Your task to perform on an android device: turn pop-ups off in chrome Image 0: 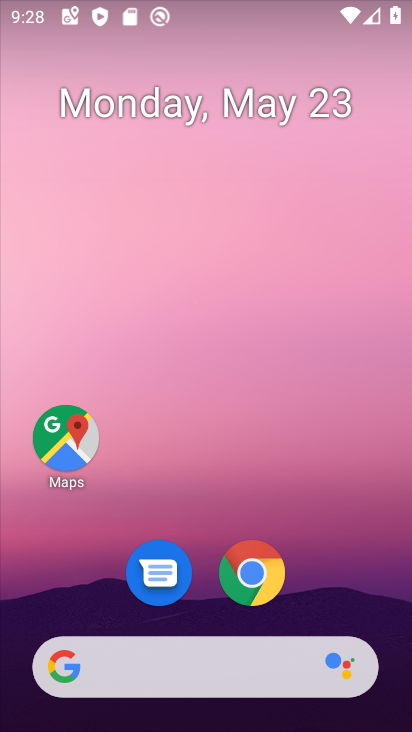
Step 0: drag from (361, 592) to (398, 331)
Your task to perform on an android device: turn pop-ups off in chrome Image 1: 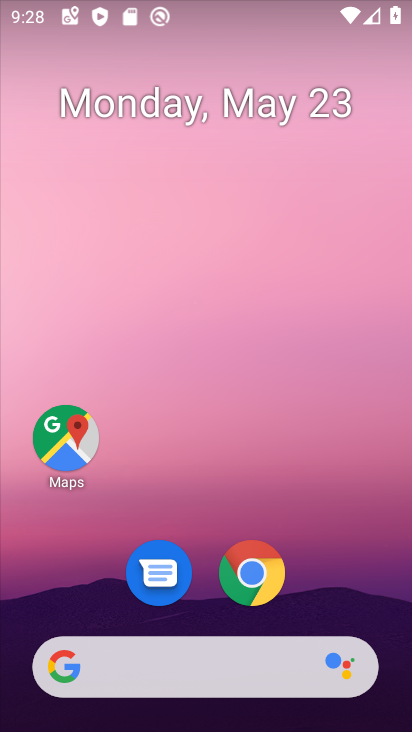
Step 1: drag from (354, 584) to (410, 457)
Your task to perform on an android device: turn pop-ups off in chrome Image 2: 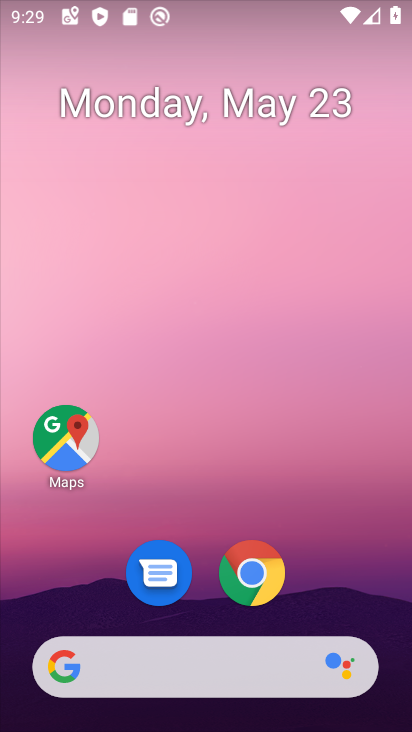
Step 2: drag from (348, 578) to (393, 112)
Your task to perform on an android device: turn pop-ups off in chrome Image 3: 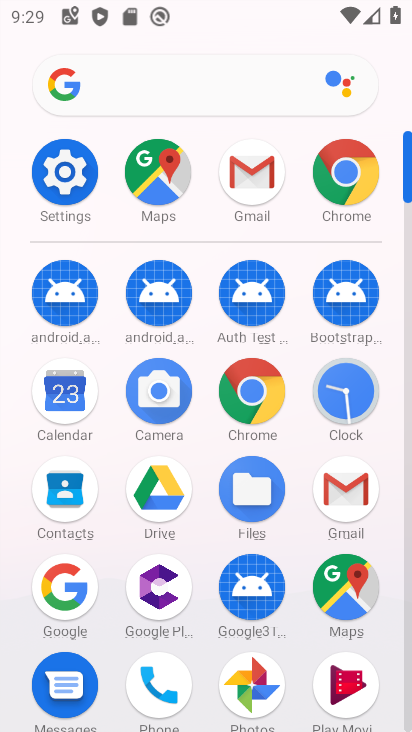
Step 3: click (350, 179)
Your task to perform on an android device: turn pop-ups off in chrome Image 4: 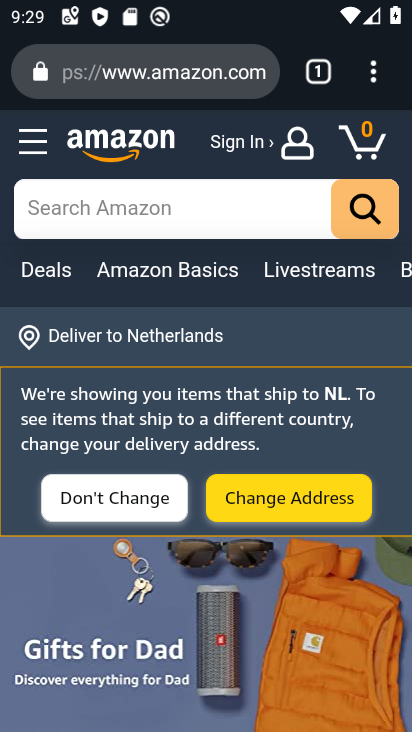
Step 4: click (373, 75)
Your task to perform on an android device: turn pop-ups off in chrome Image 5: 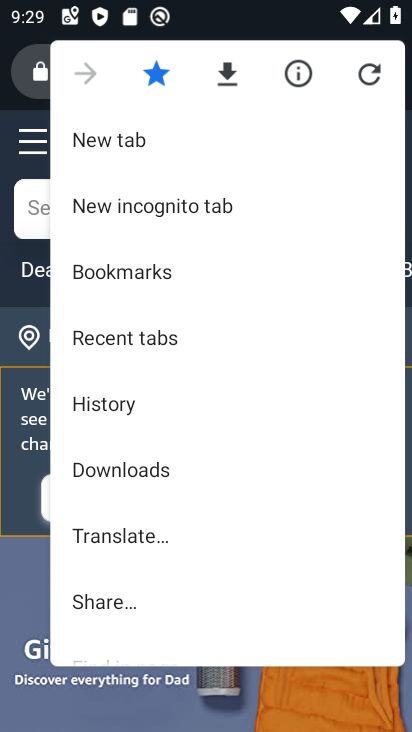
Step 5: drag from (322, 526) to (323, 401)
Your task to perform on an android device: turn pop-ups off in chrome Image 6: 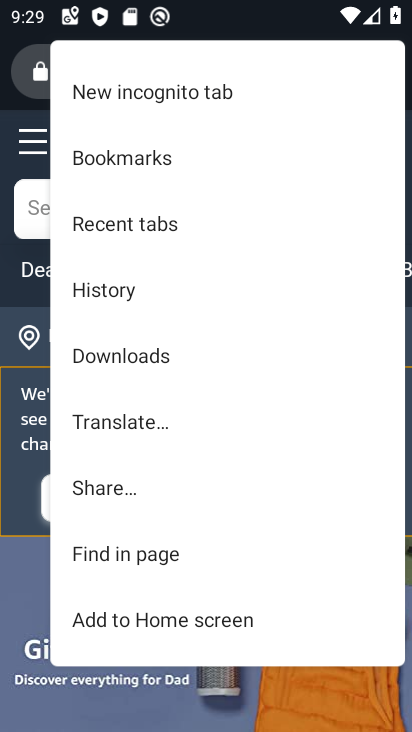
Step 6: drag from (333, 569) to (351, 437)
Your task to perform on an android device: turn pop-ups off in chrome Image 7: 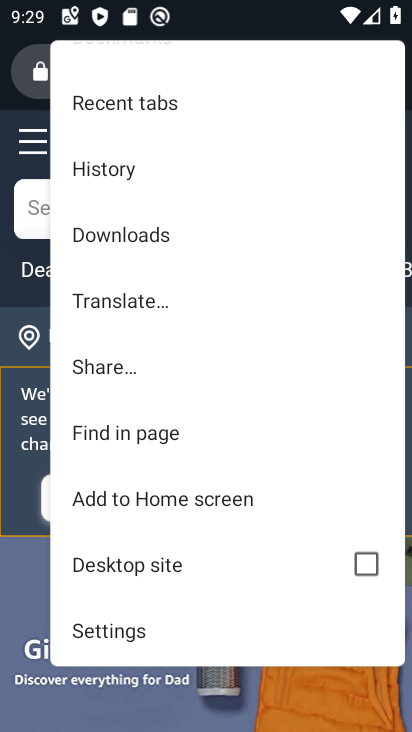
Step 7: drag from (295, 586) to (293, 488)
Your task to perform on an android device: turn pop-ups off in chrome Image 8: 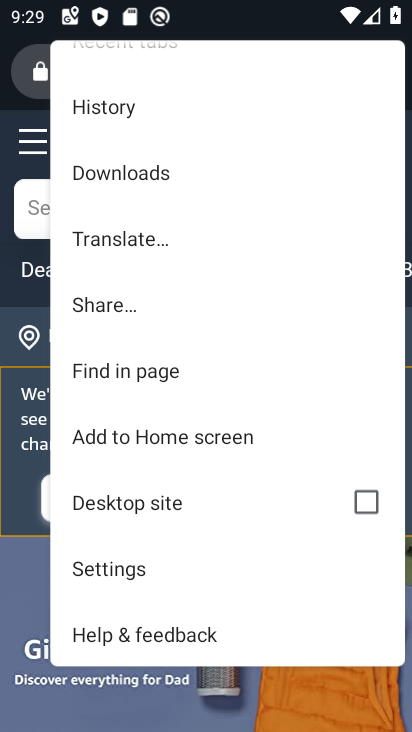
Step 8: click (144, 582)
Your task to perform on an android device: turn pop-ups off in chrome Image 9: 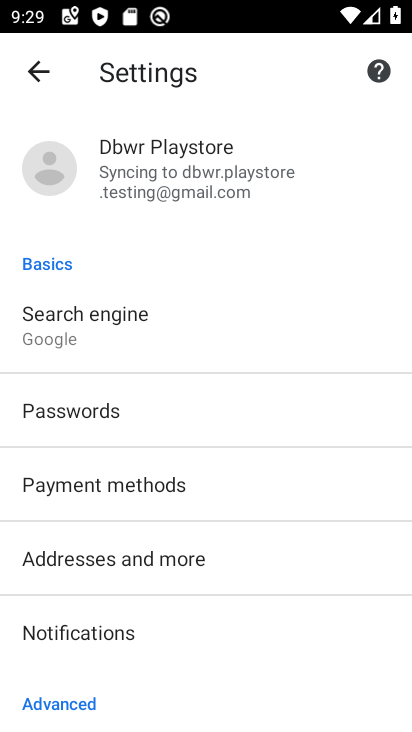
Step 9: drag from (326, 604) to (347, 482)
Your task to perform on an android device: turn pop-ups off in chrome Image 10: 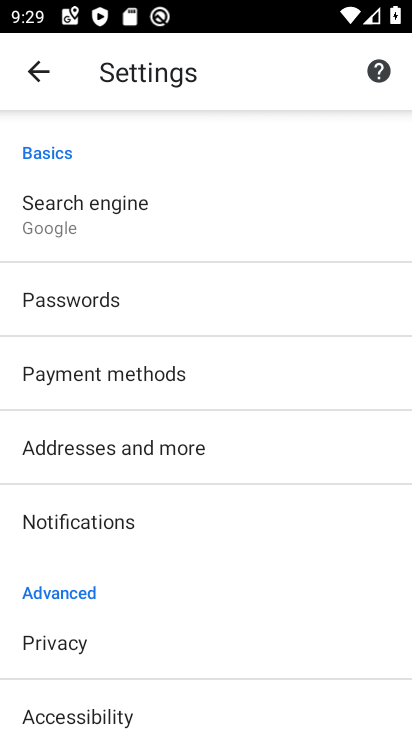
Step 10: drag from (337, 642) to (340, 471)
Your task to perform on an android device: turn pop-ups off in chrome Image 11: 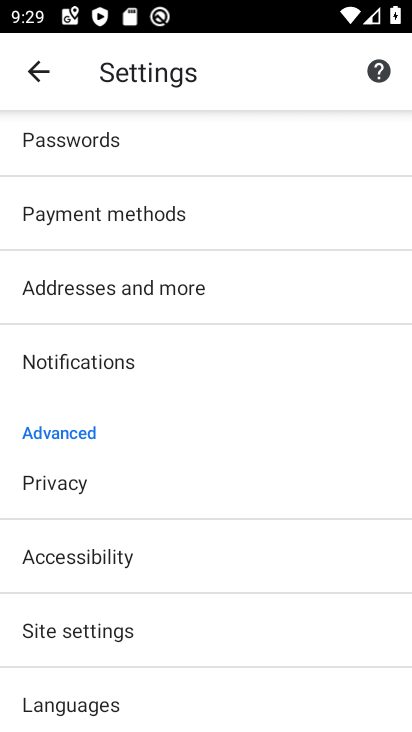
Step 11: drag from (335, 654) to (340, 547)
Your task to perform on an android device: turn pop-ups off in chrome Image 12: 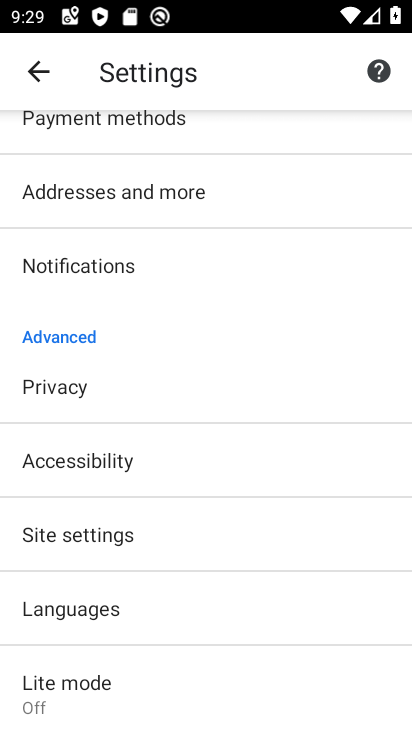
Step 12: drag from (344, 651) to (347, 523)
Your task to perform on an android device: turn pop-ups off in chrome Image 13: 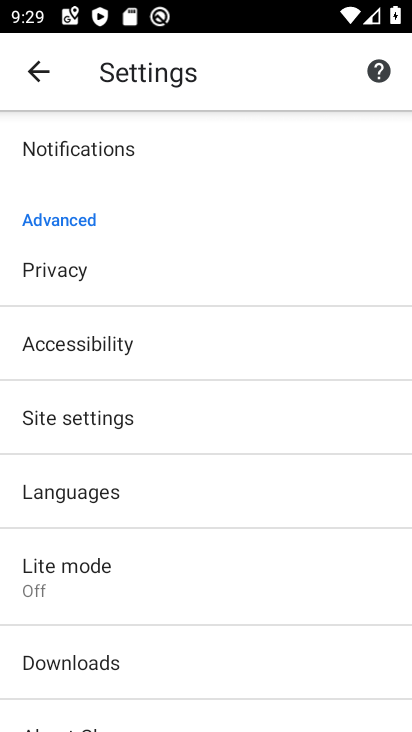
Step 13: drag from (351, 655) to (355, 539)
Your task to perform on an android device: turn pop-ups off in chrome Image 14: 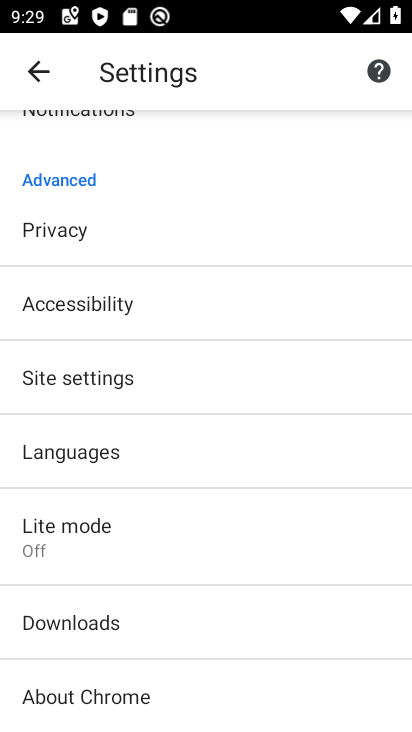
Step 14: click (306, 386)
Your task to perform on an android device: turn pop-ups off in chrome Image 15: 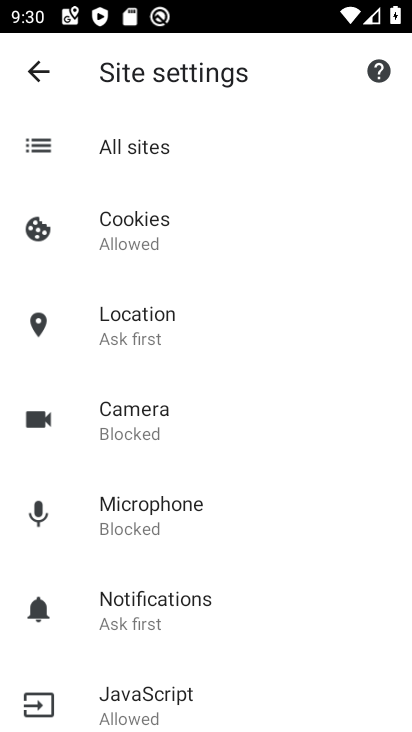
Step 15: drag from (329, 595) to (344, 465)
Your task to perform on an android device: turn pop-ups off in chrome Image 16: 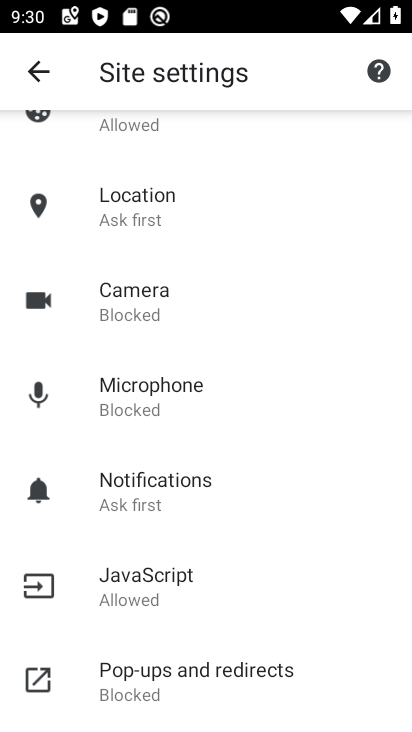
Step 16: drag from (349, 647) to (344, 521)
Your task to perform on an android device: turn pop-ups off in chrome Image 17: 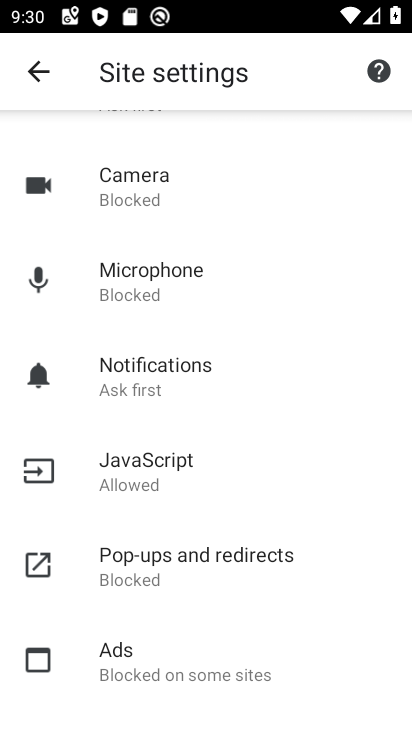
Step 17: drag from (365, 640) to (350, 526)
Your task to perform on an android device: turn pop-ups off in chrome Image 18: 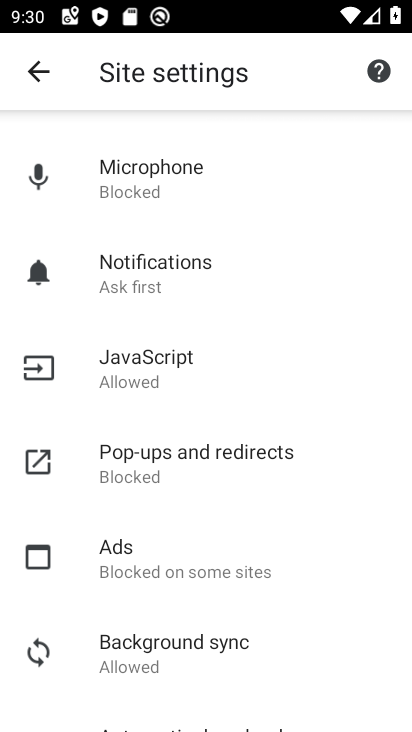
Step 18: drag from (369, 663) to (368, 535)
Your task to perform on an android device: turn pop-ups off in chrome Image 19: 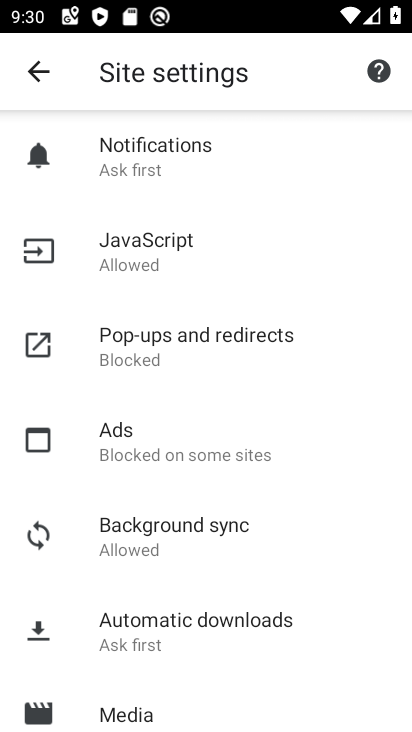
Step 19: drag from (363, 675) to (351, 582)
Your task to perform on an android device: turn pop-ups off in chrome Image 20: 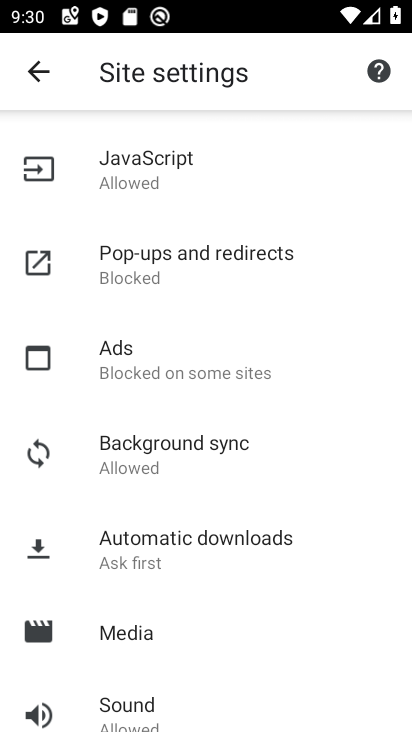
Step 20: drag from (359, 657) to (361, 550)
Your task to perform on an android device: turn pop-ups off in chrome Image 21: 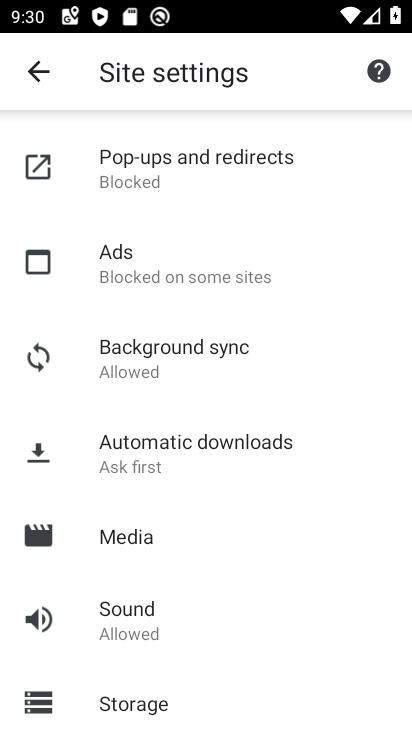
Step 21: drag from (346, 668) to (340, 560)
Your task to perform on an android device: turn pop-ups off in chrome Image 22: 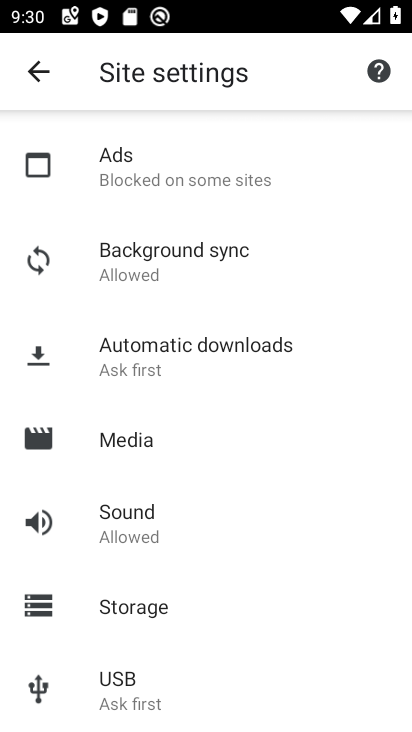
Step 22: drag from (385, 676) to (368, 537)
Your task to perform on an android device: turn pop-ups off in chrome Image 23: 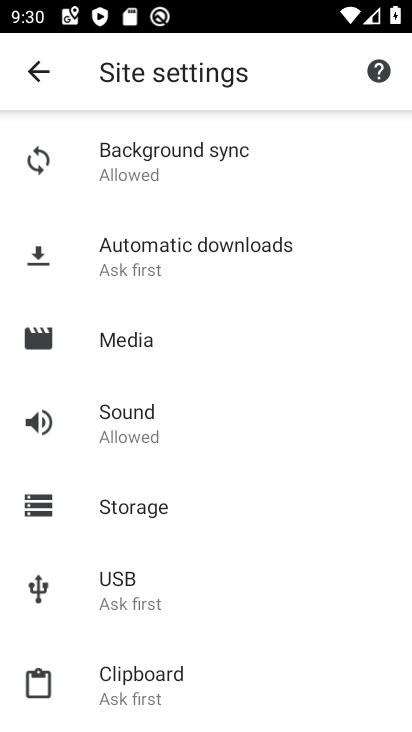
Step 23: drag from (373, 425) to (355, 542)
Your task to perform on an android device: turn pop-ups off in chrome Image 24: 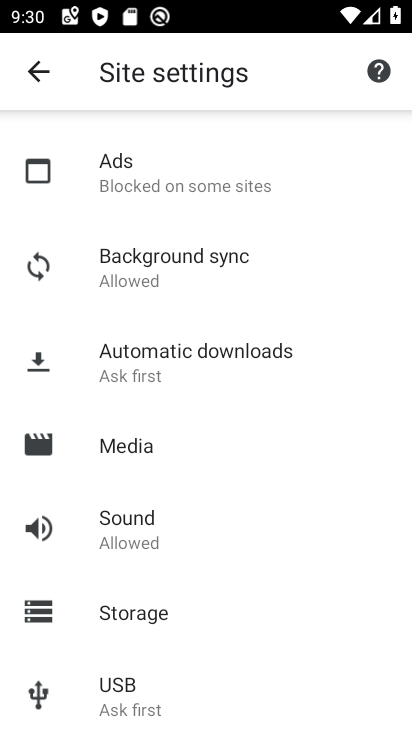
Step 24: drag from (344, 402) to (345, 499)
Your task to perform on an android device: turn pop-ups off in chrome Image 25: 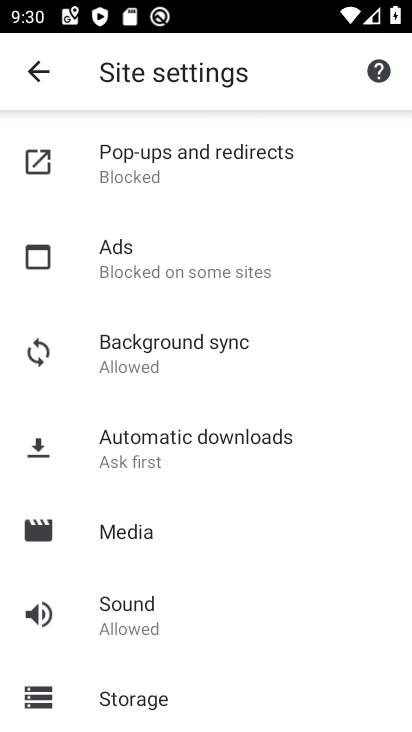
Step 25: drag from (378, 366) to (364, 449)
Your task to perform on an android device: turn pop-ups off in chrome Image 26: 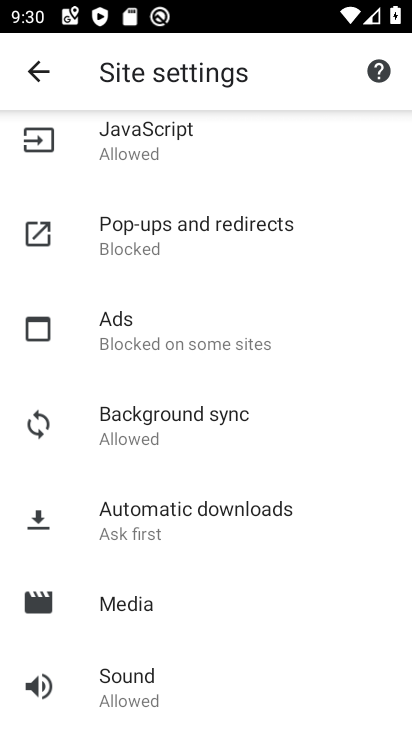
Step 26: drag from (346, 313) to (338, 415)
Your task to perform on an android device: turn pop-ups off in chrome Image 27: 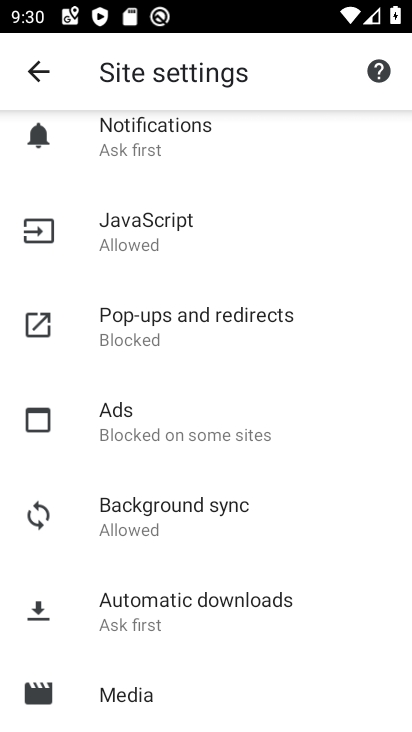
Step 27: drag from (341, 306) to (337, 406)
Your task to perform on an android device: turn pop-ups off in chrome Image 28: 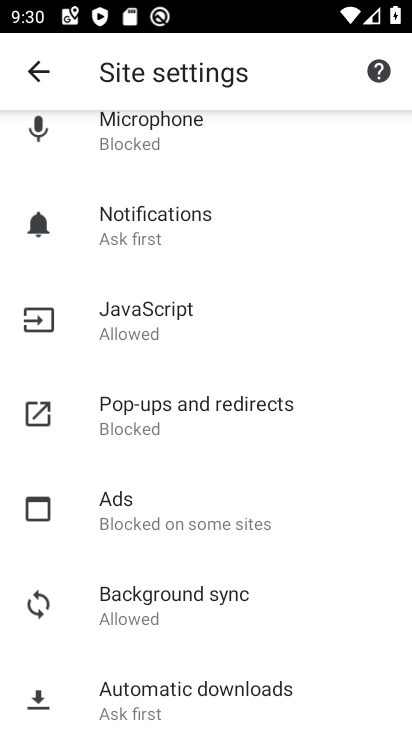
Step 28: click (332, 411)
Your task to perform on an android device: turn pop-ups off in chrome Image 29: 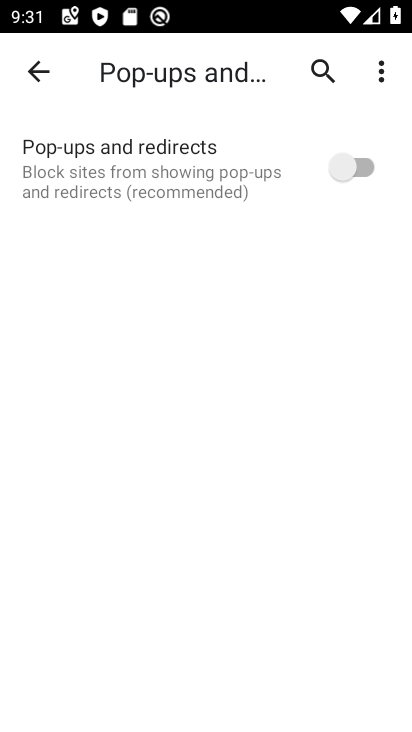
Step 29: task complete